Your task to perform on an android device: change the clock display to digital Image 0: 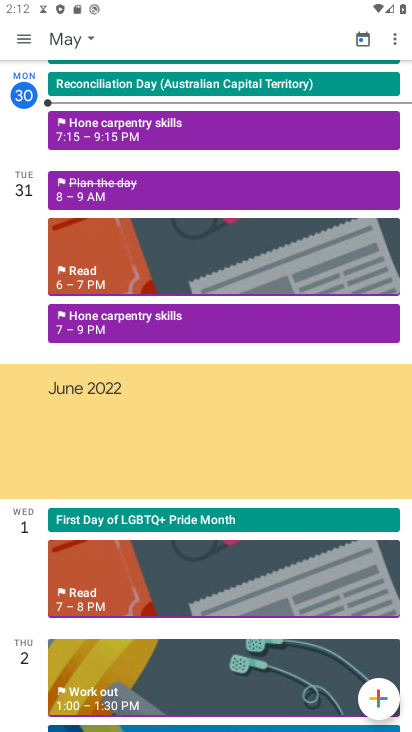
Step 0: press home button
Your task to perform on an android device: change the clock display to digital Image 1: 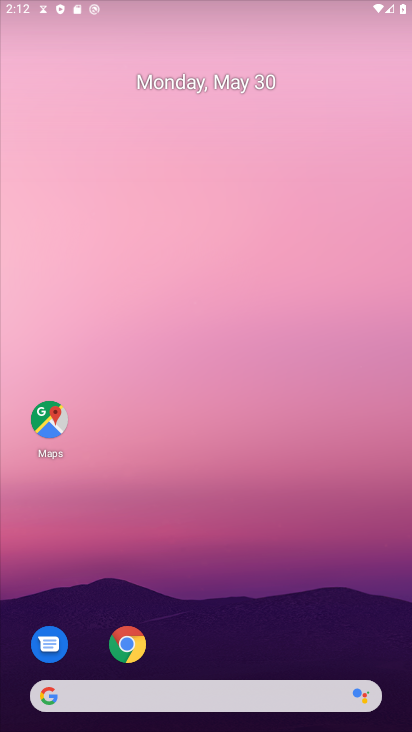
Step 1: drag from (266, 512) to (214, 127)
Your task to perform on an android device: change the clock display to digital Image 2: 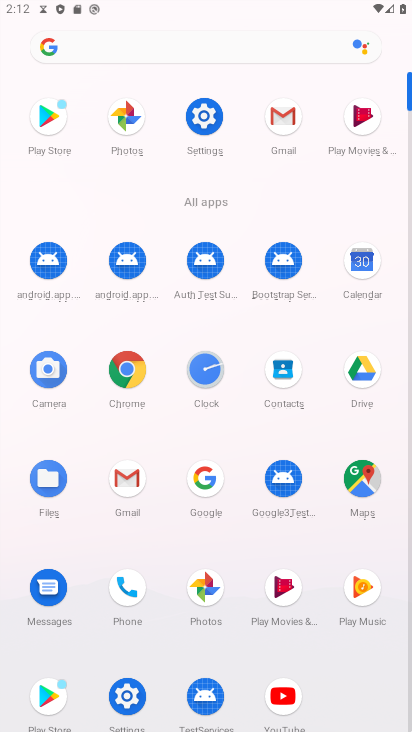
Step 2: click (196, 367)
Your task to perform on an android device: change the clock display to digital Image 3: 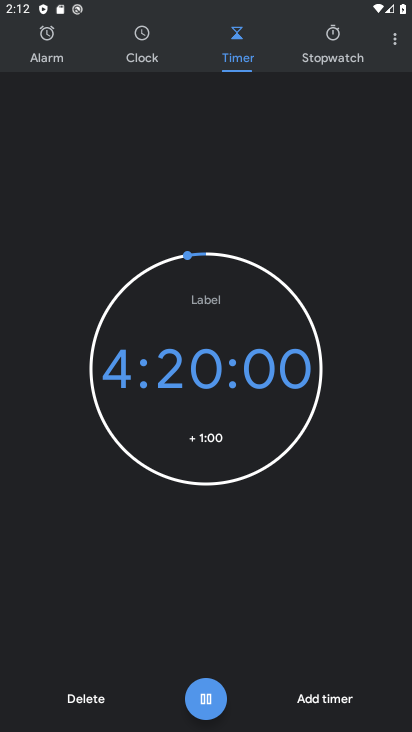
Step 3: click (395, 32)
Your task to perform on an android device: change the clock display to digital Image 4: 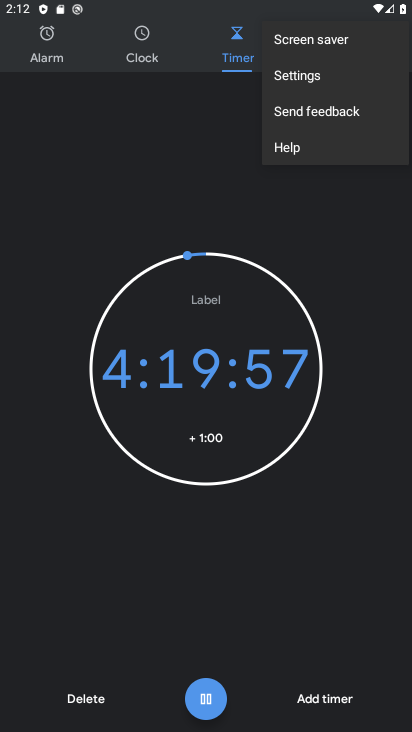
Step 4: click (323, 80)
Your task to perform on an android device: change the clock display to digital Image 5: 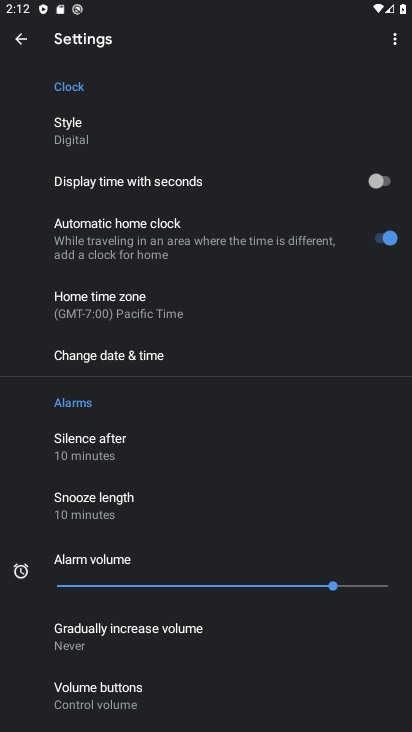
Step 5: click (98, 135)
Your task to perform on an android device: change the clock display to digital Image 6: 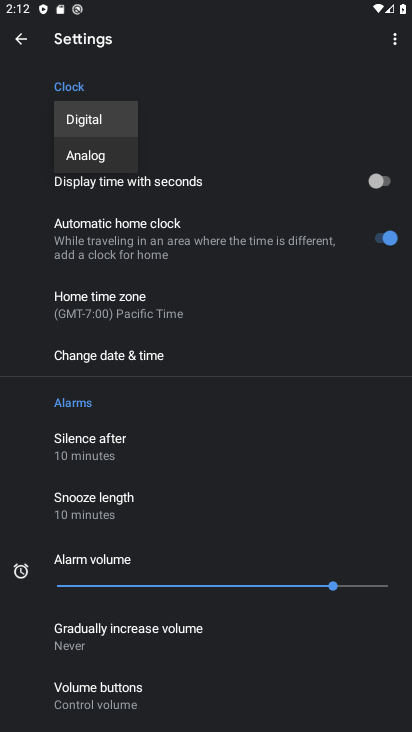
Step 6: task complete